Your task to perform on an android device: Show me some nice wallpapers for my computer Image 0: 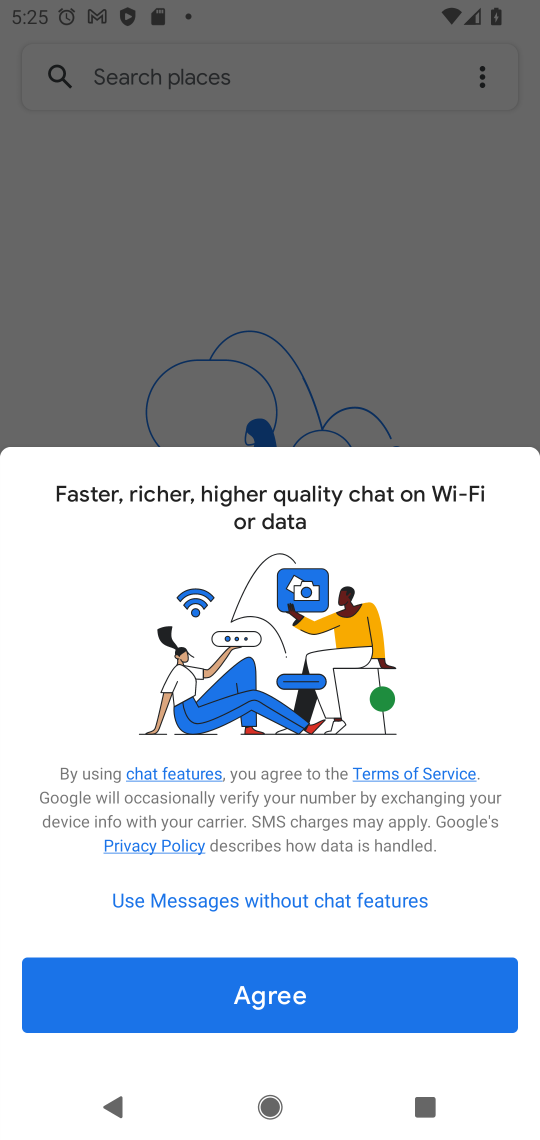
Step 0: press home button
Your task to perform on an android device: Show me some nice wallpapers for my computer Image 1: 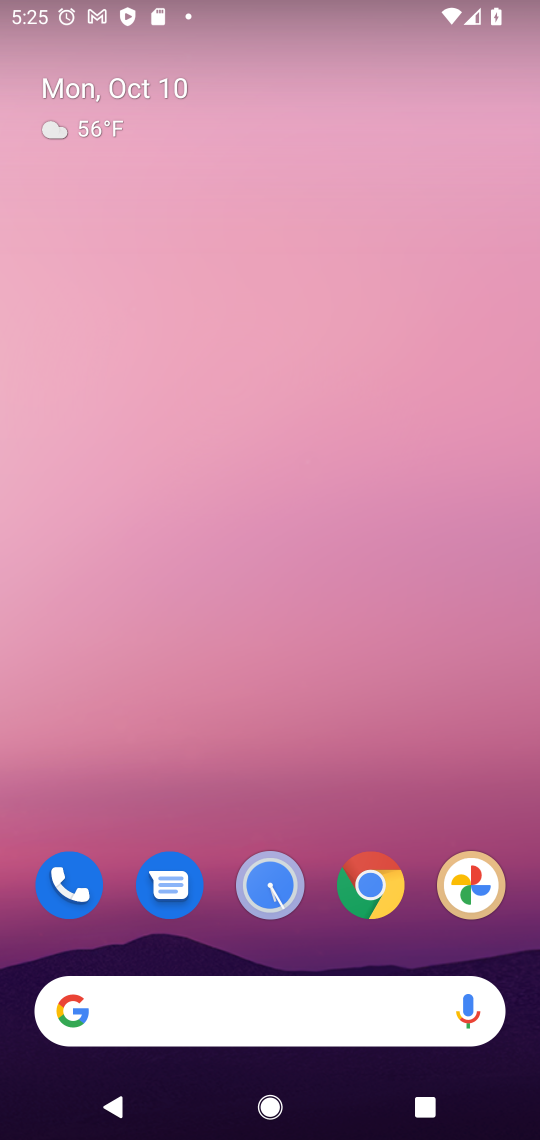
Step 1: click (283, 1006)
Your task to perform on an android device: Show me some nice wallpapers for my computer Image 2: 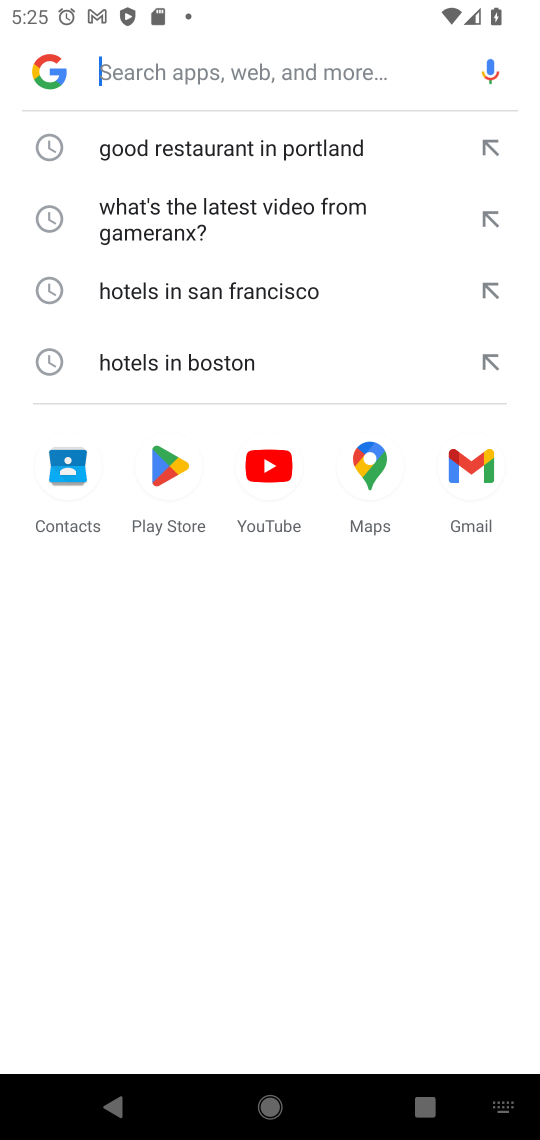
Step 2: type "Show me some nice wallpapers for my computer"
Your task to perform on an android device: Show me some nice wallpapers for my computer Image 3: 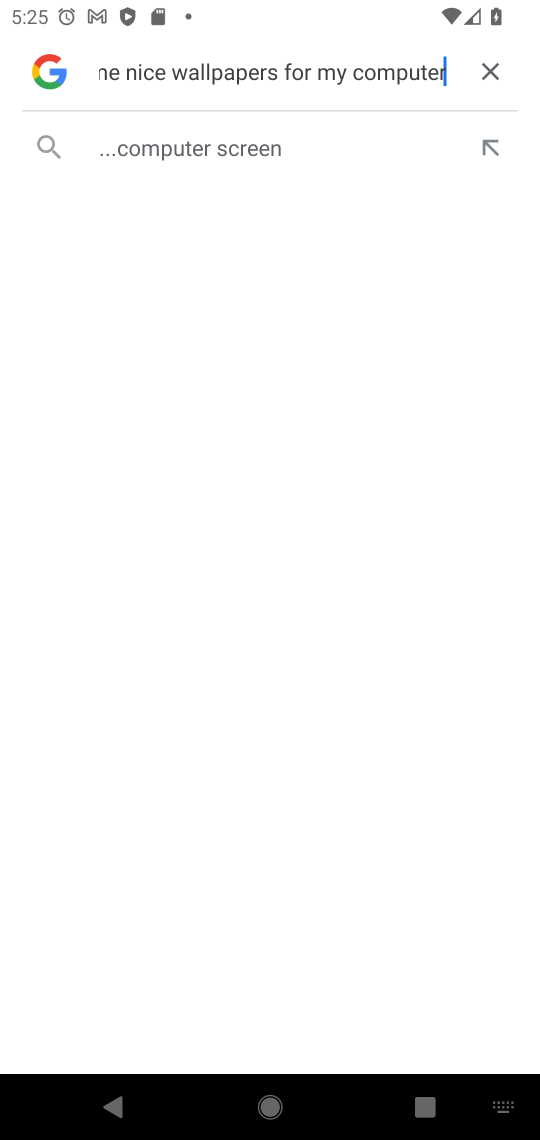
Step 3: click (166, 144)
Your task to perform on an android device: Show me some nice wallpapers for my computer Image 4: 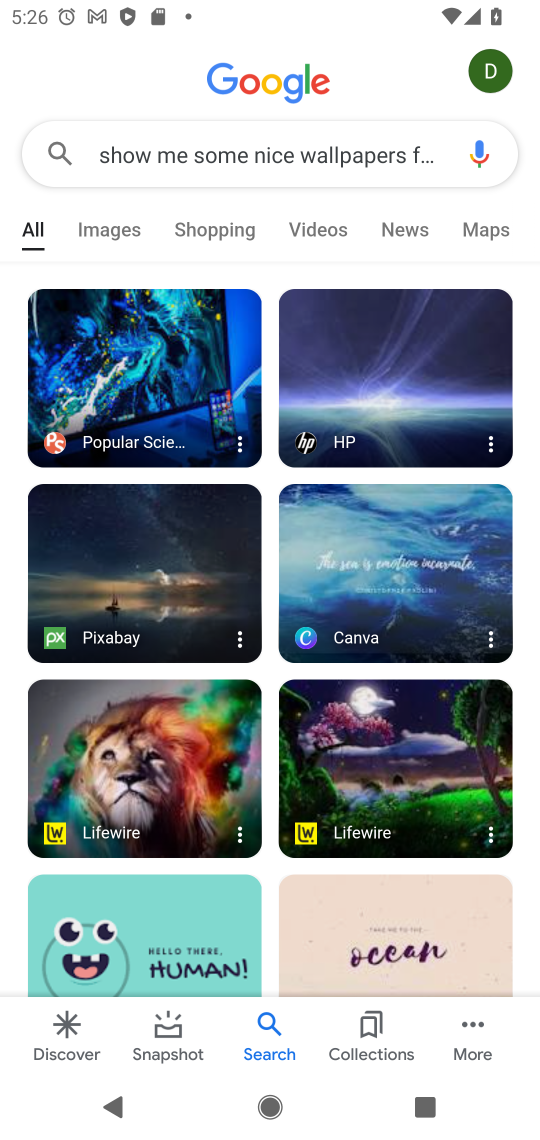
Step 4: task complete